Your task to perform on an android device: set the timer Image 0: 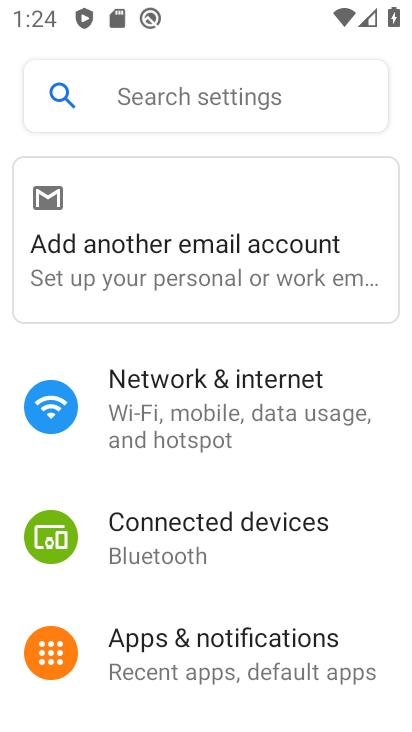
Step 0: press back button
Your task to perform on an android device: set the timer Image 1: 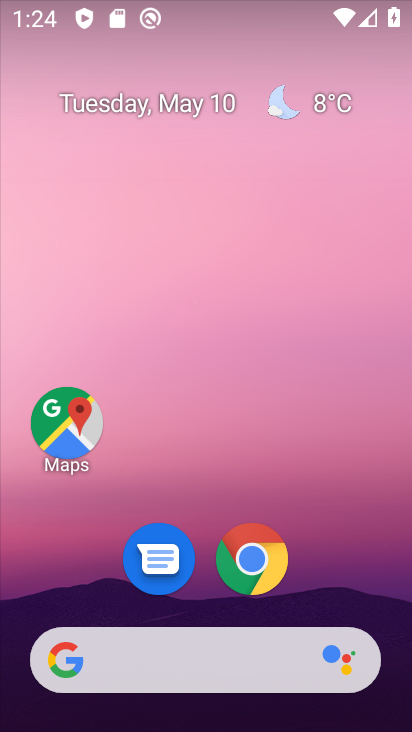
Step 1: drag from (100, 631) to (279, 159)
Your task to perform on an android device: set the timer Image 2: 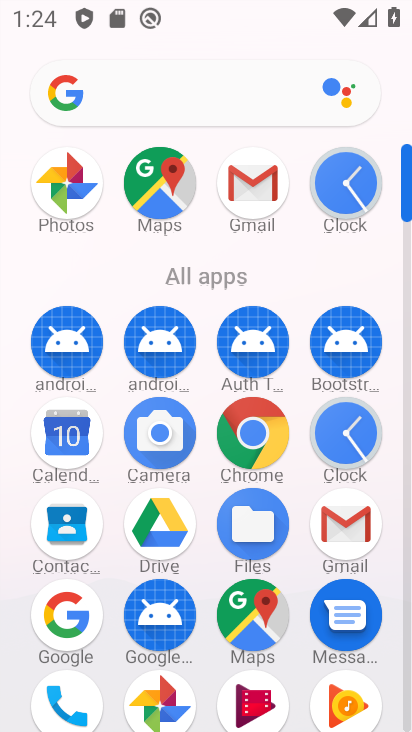
Step 2: click (356, 437)
Your task to perform on an android device: set the timer Image 3: 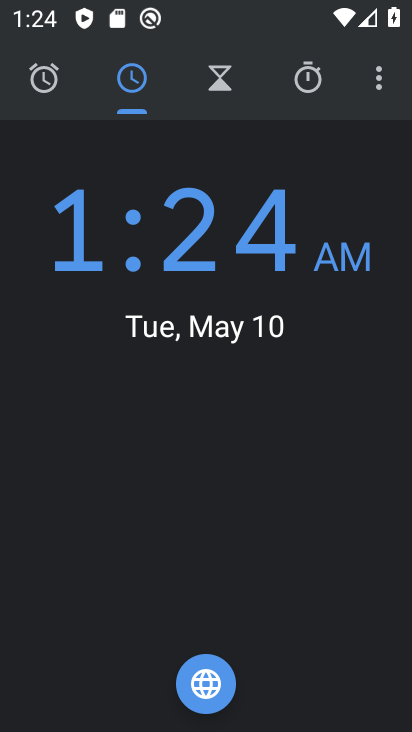
Step 3: click (227, 88)
Your task to perform on an android device: set the timer Image 4: 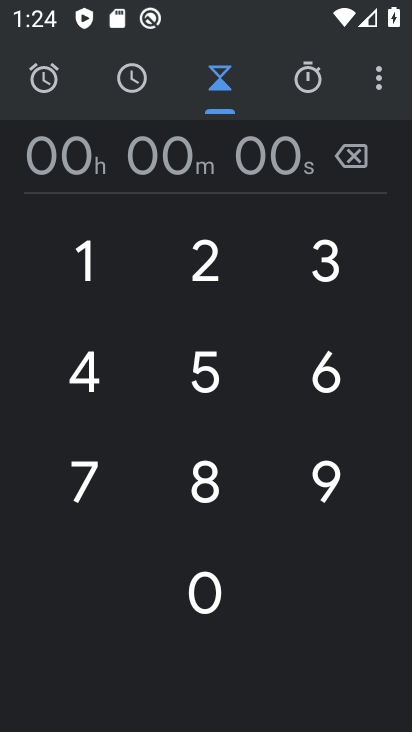
Step 4: click (190, 262)
Your task to perform on an android device: set the timer Image 5: 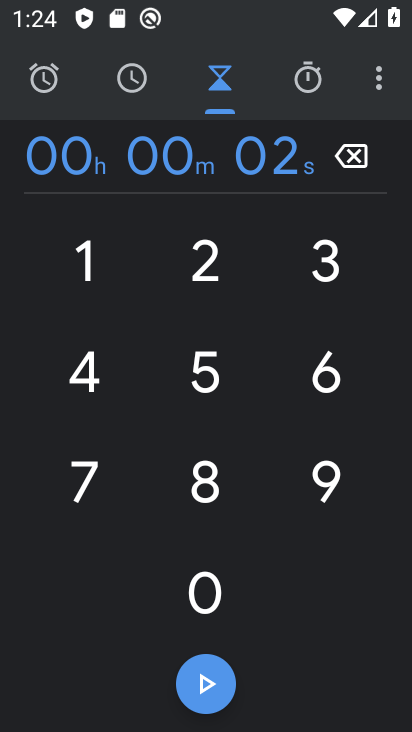
Step 5: click (203, 383)
Your task to perform on an android device: set the timer Image 6: 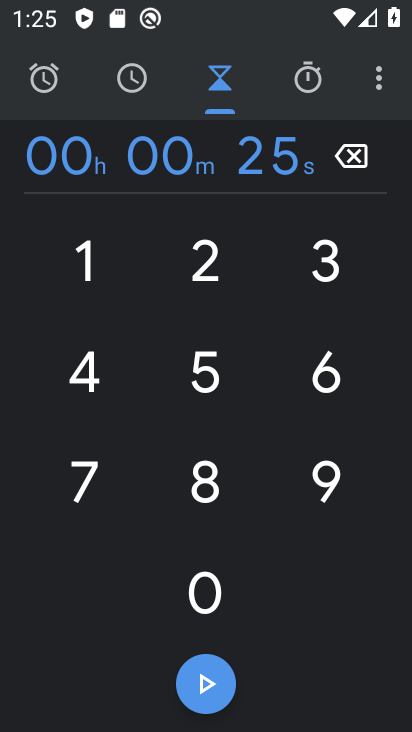
Step 6: click (220, 684)
Your task to perform on an android device: set the timer Image 7: 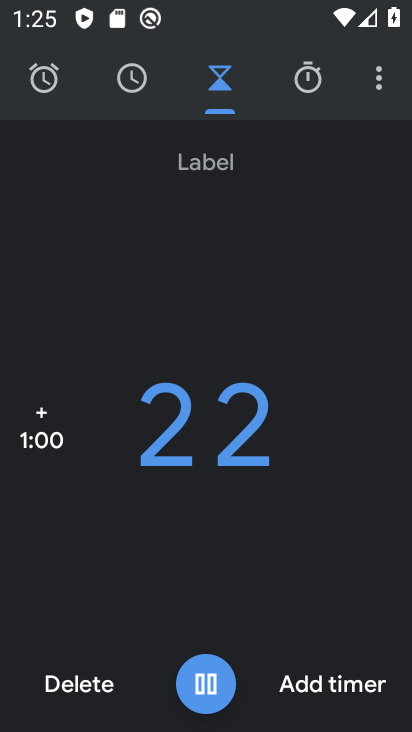
Step 7: task complete